Your task to perform on an android device: Open Amazon Image 0: 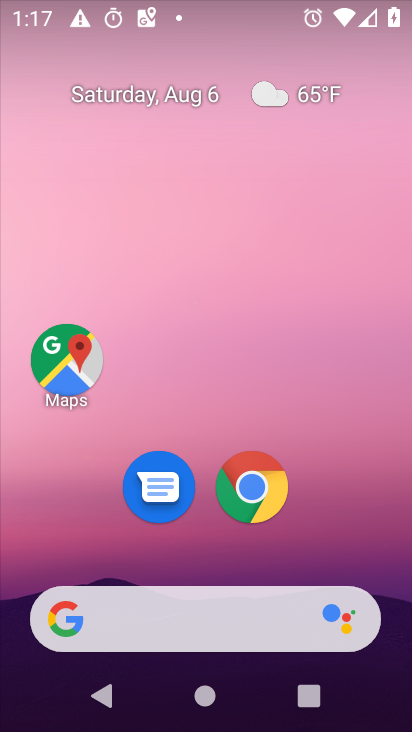
Step 0: click (238, 481)
Your task to perform on an android device: Open Amazon Image 1: 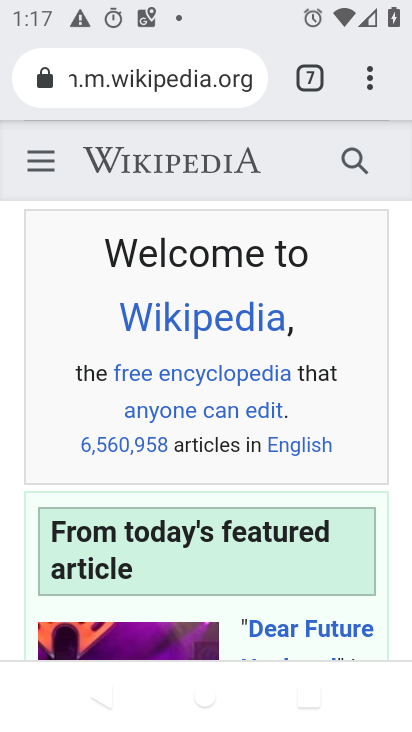
Step 1: click (323, 74)
Your task to perform on an android device: Open Amazon Image 2: 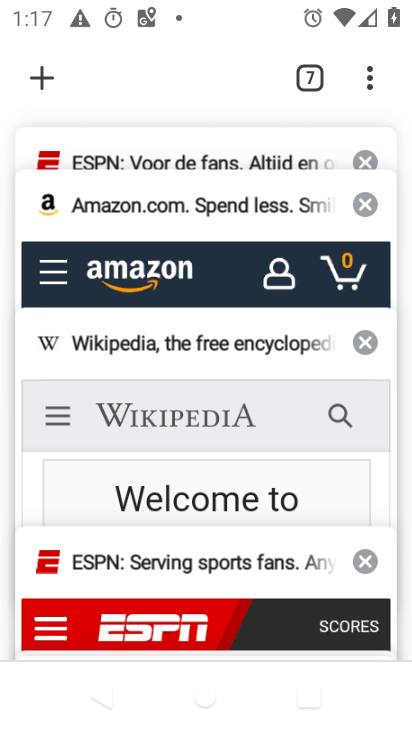
Step 2: click (206, 236)
Your task to perform on an android device: Open Amazon Image 3: 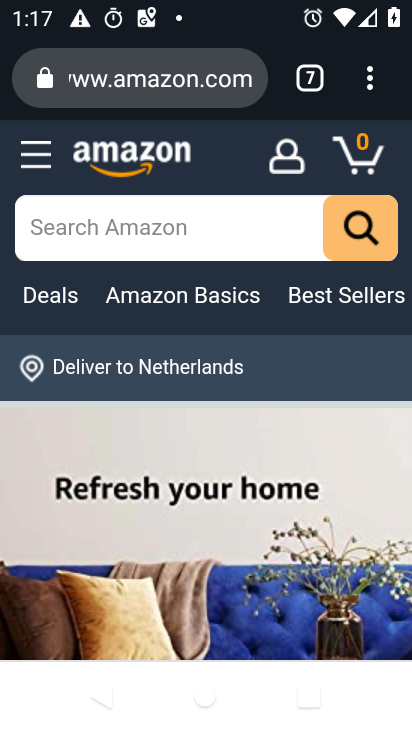
Step 3: task complete